Your task to perform on an android device: Open Reddit.com Image 0: 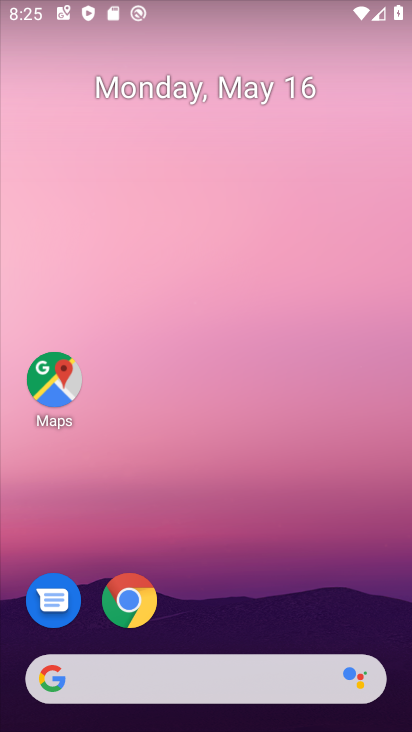
Step 0: click (140, 615)
Your task to perform on an android device: Open Reddit.com Image 1: 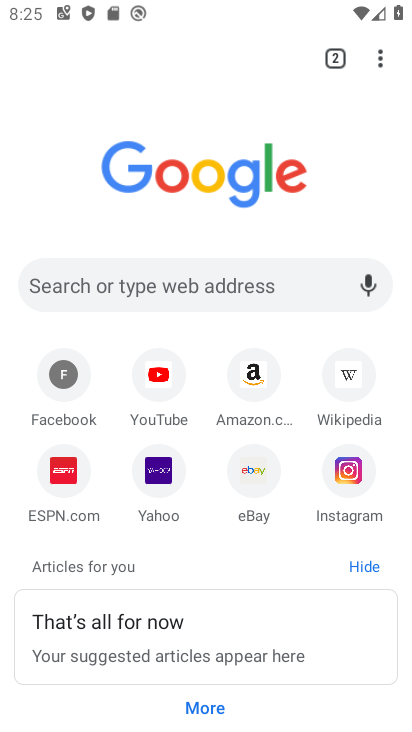
Step 1: click (216, 287)
Your task to perform on an android device: Open Reddit.com Image 2: 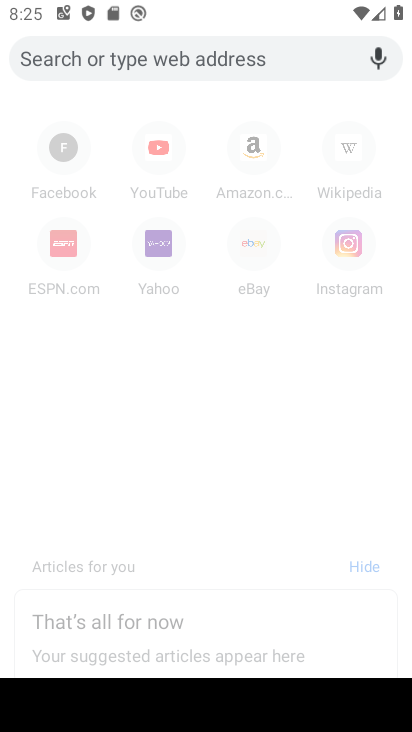
Step 2: type "reddit"
Your task to perform on an android device: Open Reddit.com Image 3: 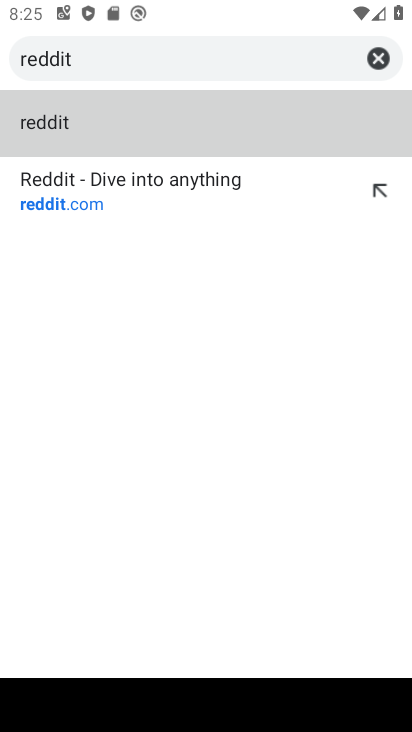
Step 3: click (40, 197)
Your task to perform on an android device: Open Reddit.com Image 4: 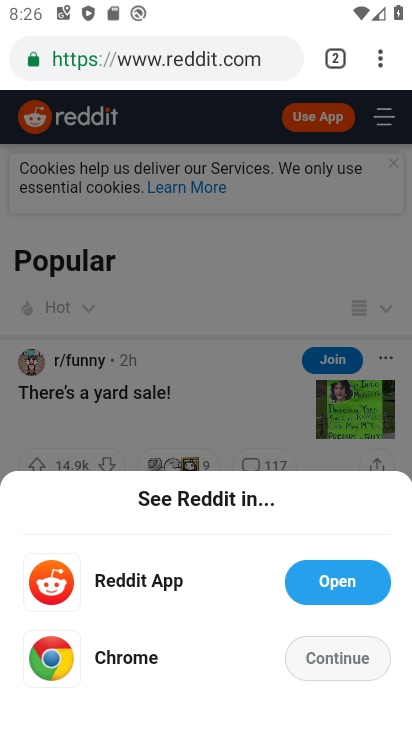
Step 4: task complete